Your task to perform on an android device: Search for seafood restaurants on Google Maps Image 0: 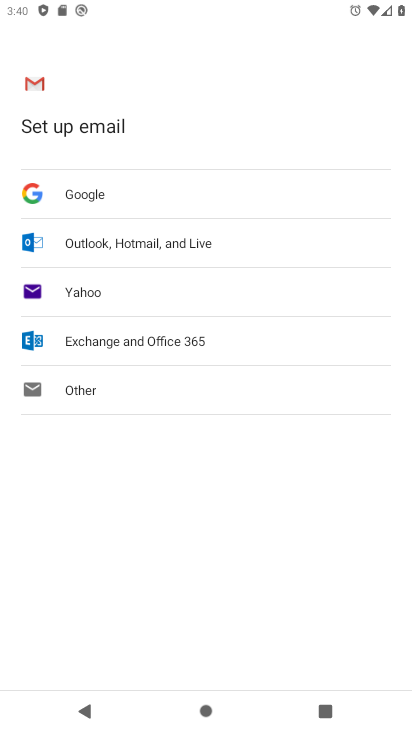
Step 0: press home button
Your task to perform on an android device: Search for seafood restaurants on Google Maps Image 1: 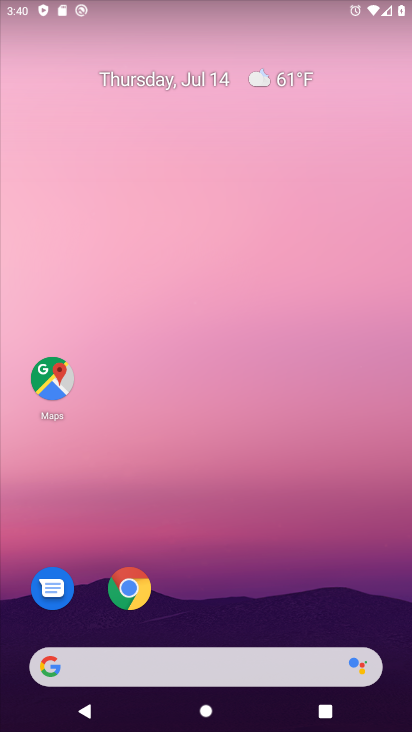
Step 1: press home button
Your task to perform on an android device: Search for seafood restaurants on Google Maps Image 2: 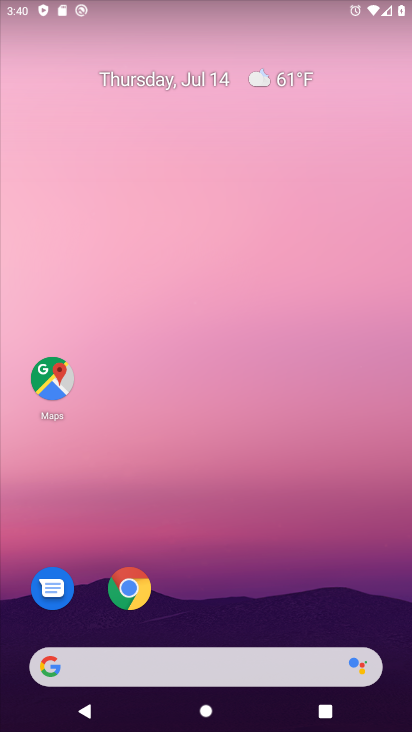
Step 2: press home button
Your task to perform on an android device: Search for seafood restaurants on Google Maps Image 3: 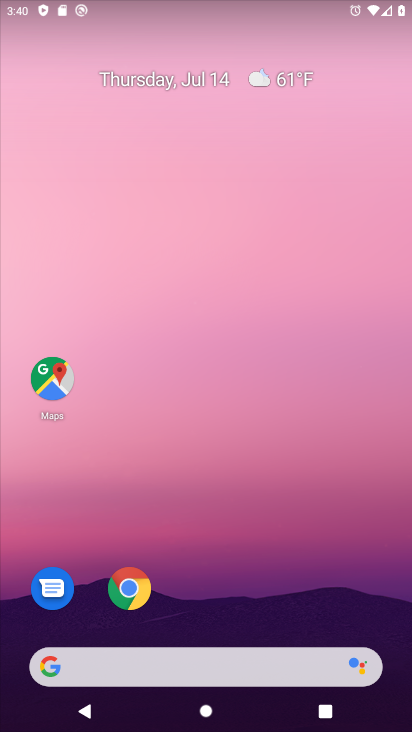
Step 3: press home button
Your task to perform on an android device: Search for seafood restaurants on Google Maps Image 4: 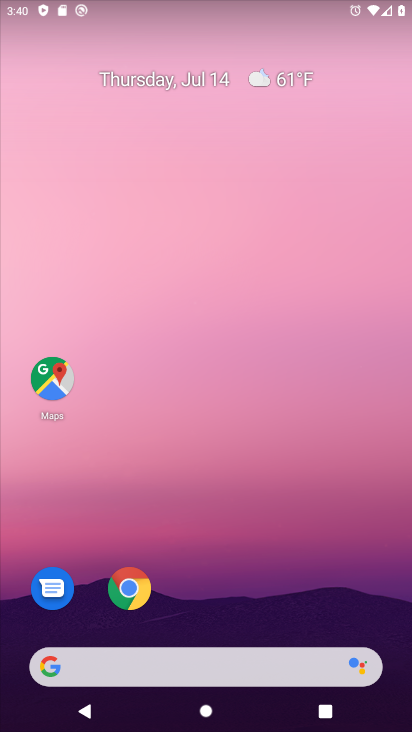
Step 4: click (43, 368)
Your task to perform on an android device: Search for seafood restaurants on Google Maps Image 5: 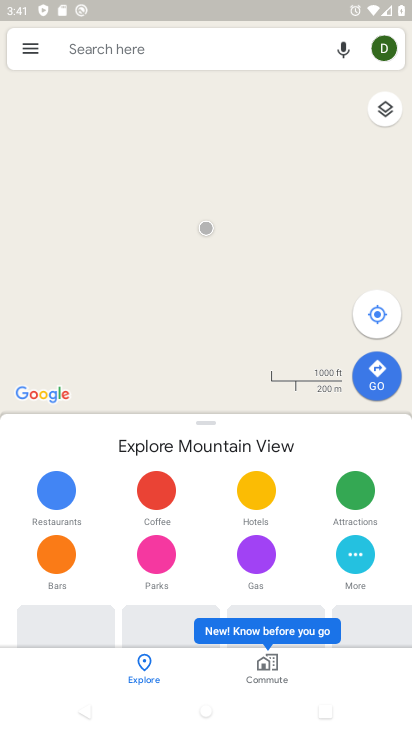
Step 5: click (105, 49)
Your task to perform on an android device: Search for seafood restaurants on Google Maps Image 6: 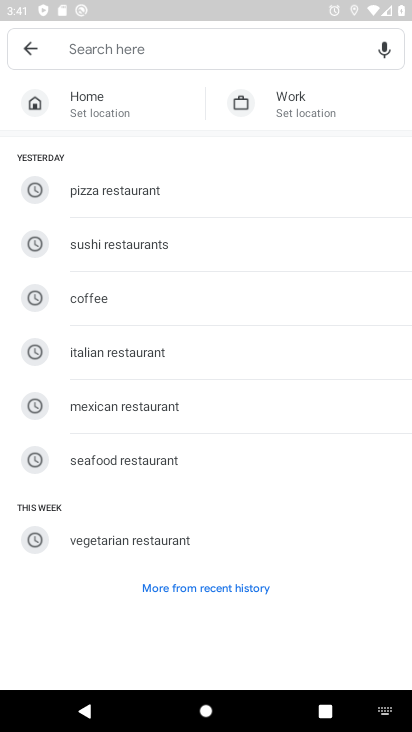
Step 6: type "seafood restaurants"
Your task to perform on an android device: Search for seafood restaurants on Google Maps Image 7: 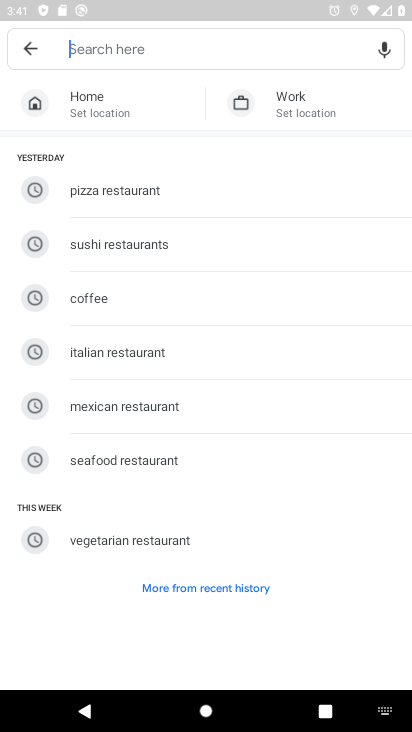
Step 7: click (97, 49)
Your task to perform on an android device: Search for seafood restaurants on Google Maps Image 8: 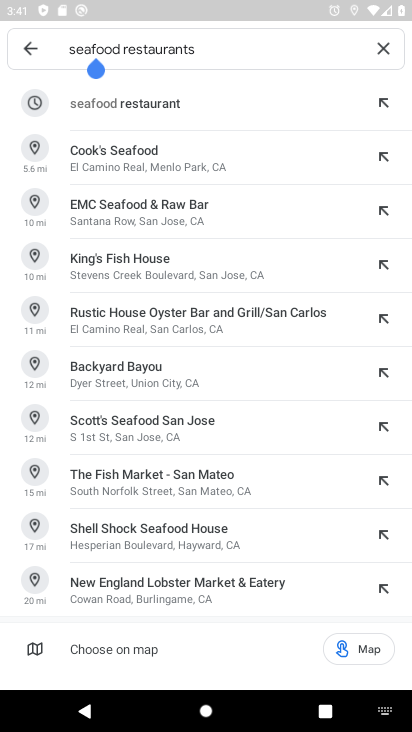
Step 8: click (141, 101)
Your task to perform on an android device: Search for seafood restaurants on Google Maps Image 9: 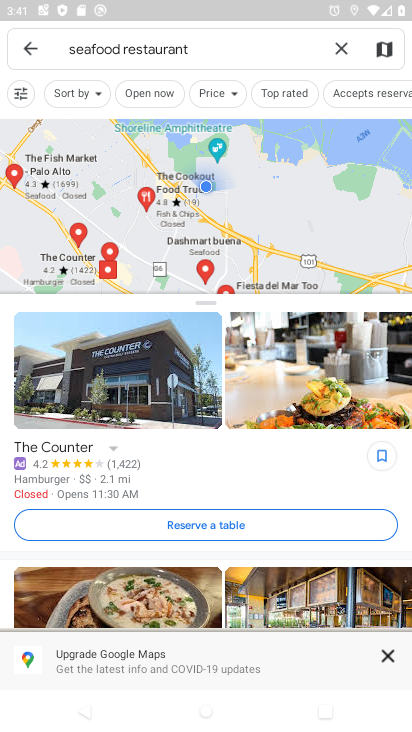
Step 9: task complete